Your task to perform on an android device: snooze an email in the gmail app Image 0: 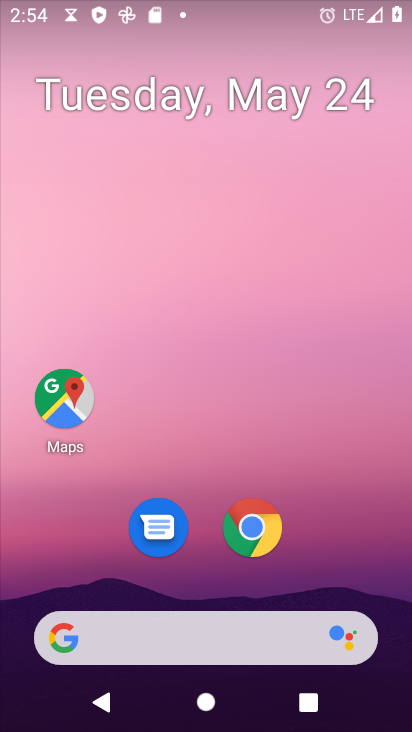
Step 0: drag from (192, 635) to (350, 177)
Your task to perform on an android device: snooze an email in the gmail app Image 1: 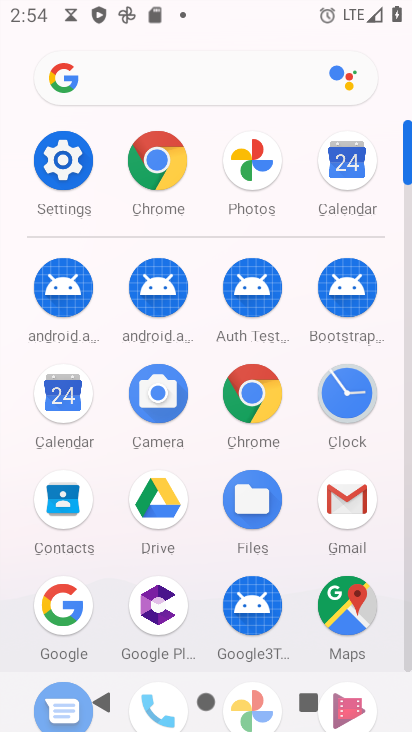
Step 1: click (356, 504)
Your task to perform on an android device: snooze an email in the gmail app Image 2: 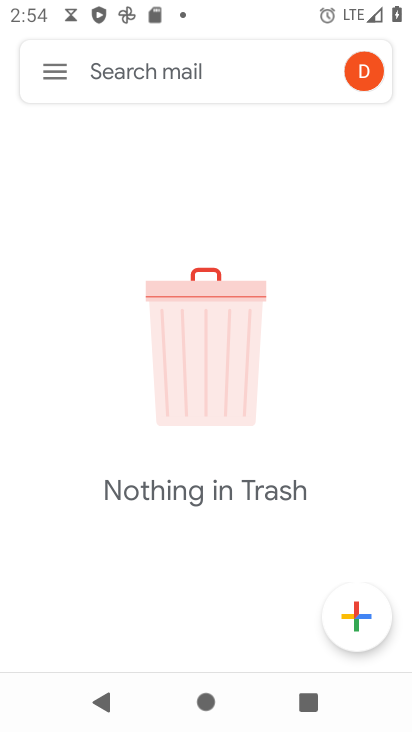
Step 2: click (61, 69)
Your task to perform on an android device: snooze an email in the gmail app Image 3: 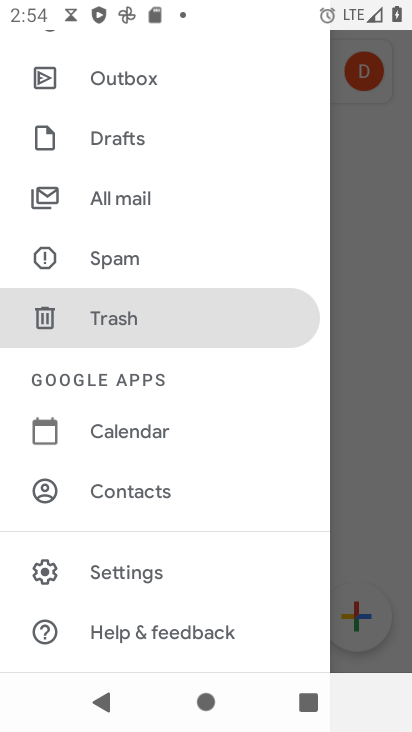
Step 3: click (121, 203)
Your task to perform on an android device: snooze an email in the gmail app Image 4: 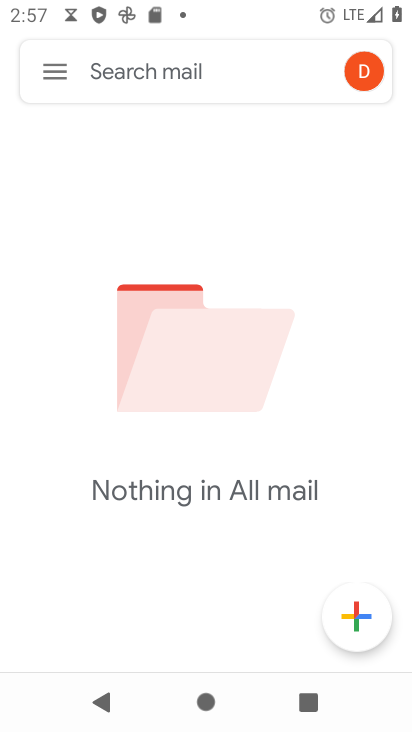
Step 4: task complete